Your task to perform on an android device: Open Reddit.com Image 0: 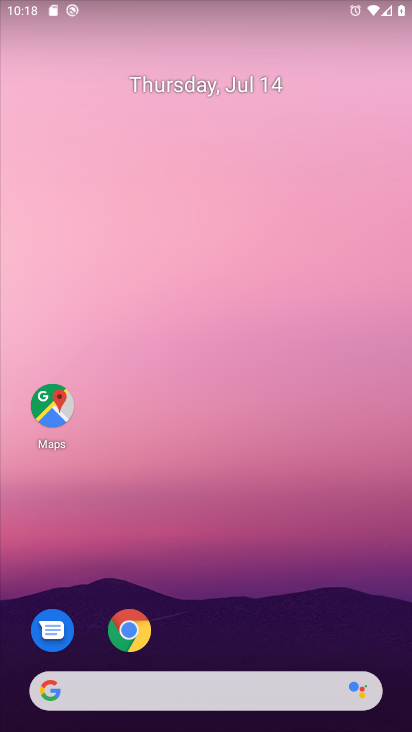
Step 0: click (242, 170)
Your task to perform on an android device: Open Reddit.com Image 1: 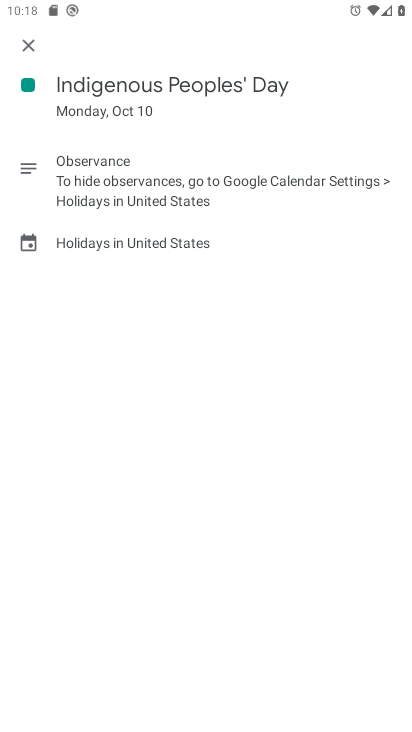
Step 1: press home button
Your task to perform on an android device: Open Reddit.com Image 2: 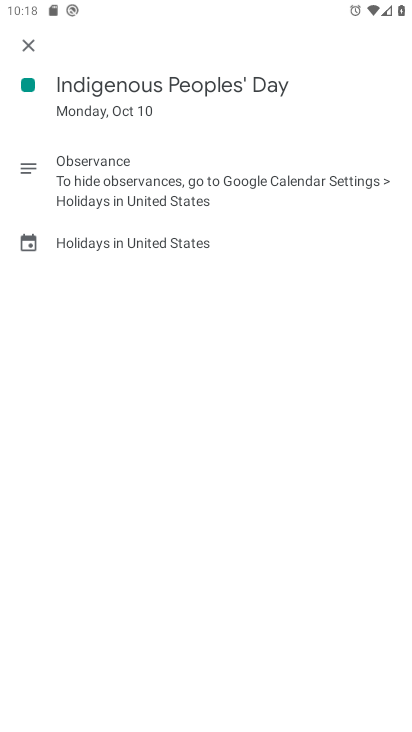
Step 2: press home button
Your task to perform on an android device: Open Reddit.com Image 3: 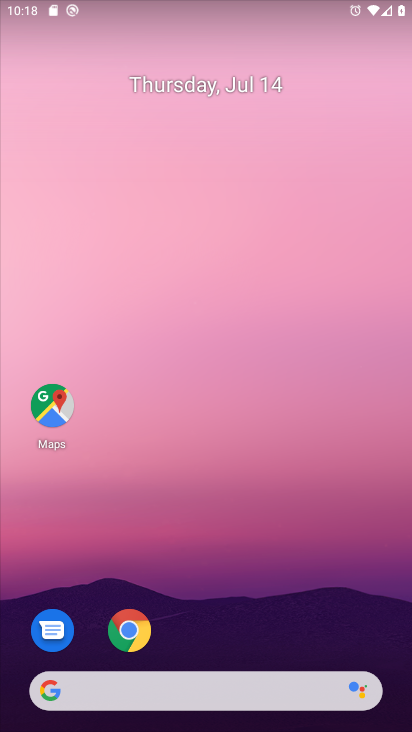
Step 3: drag from (192, 627) to (253, 82)
Your task to perform on an android device: Open Reddit.com Image 4: 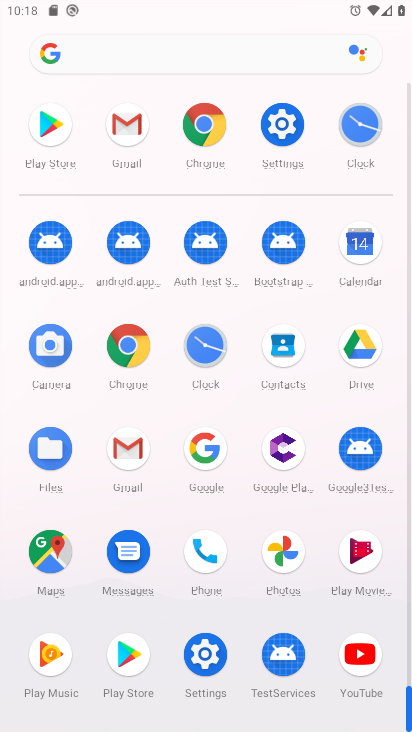
Step 4: click (235, 52)
Your task to perform on an android device: Open Reddit.com Image 5: 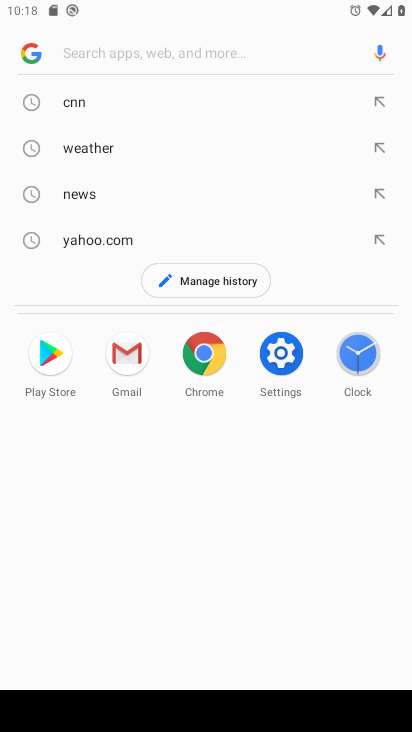
Step 5: click (100, 40)
Your task to perform on an android device: Open Reddit.com Image 6: 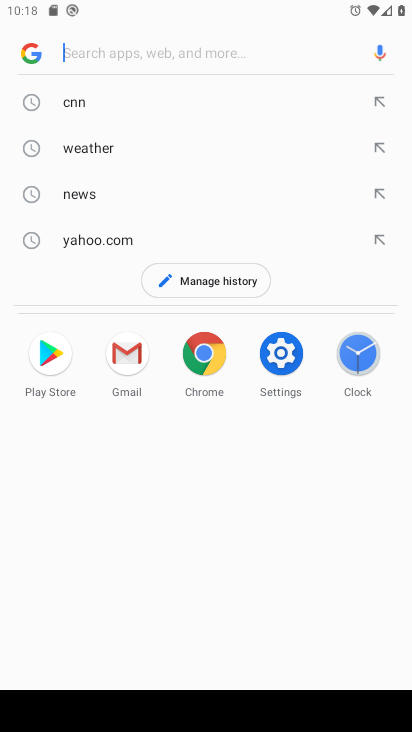
Step 6: click (91, 47)
Your task to perform on an android device: Open Reddit.com Image 7: 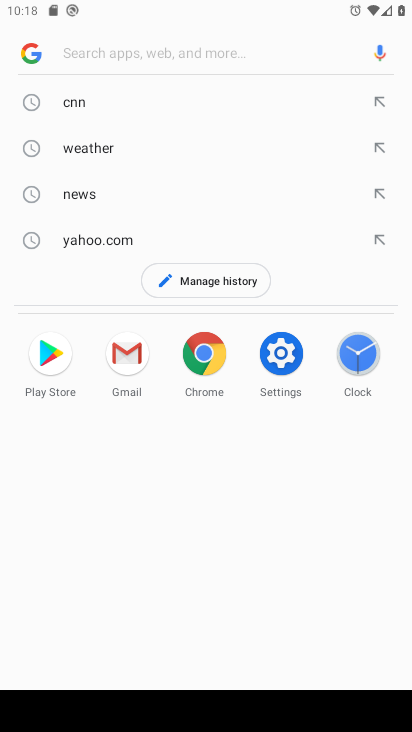
Step 7: type "Reddit.com"
Your task to perform on an android device: Open Reddit.com Image 8: 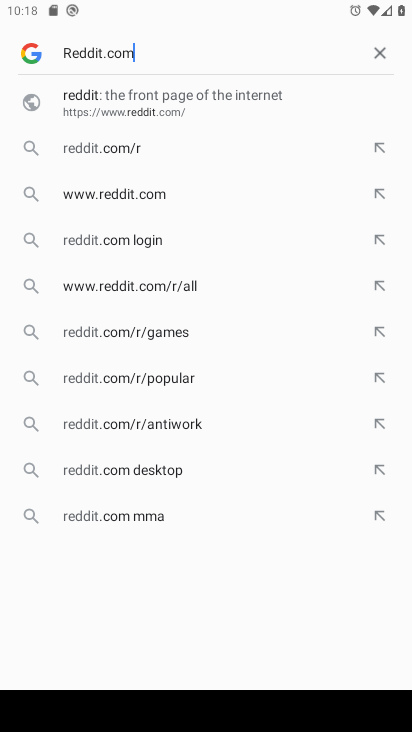
Step 8: type ""
Your task to perform on an android device: Open Reddit.com Image 9: 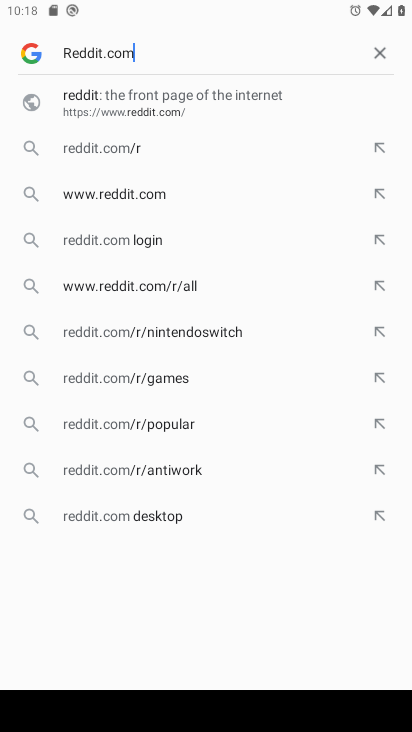
Step 9: click (127, 200)
Your task to perform on an android device: Open Reddit.com Image 10: 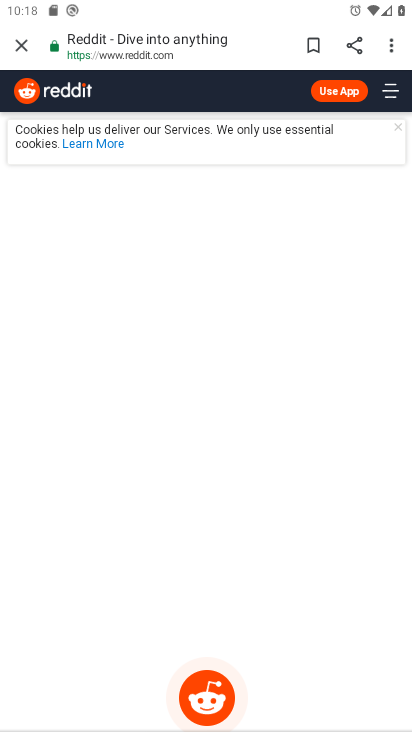
Step 10: task complete